Your task to perform on an android device: Open Google Chrome Image 0: 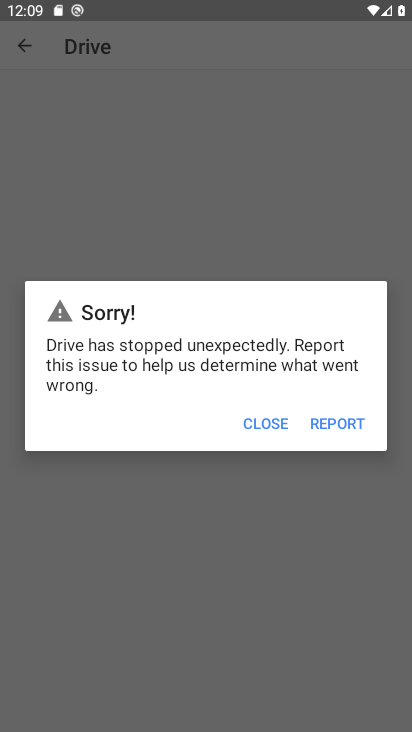
Step 0: click (278, 406)
Your task to perform on an android device: Open Google Chrome Image 1: 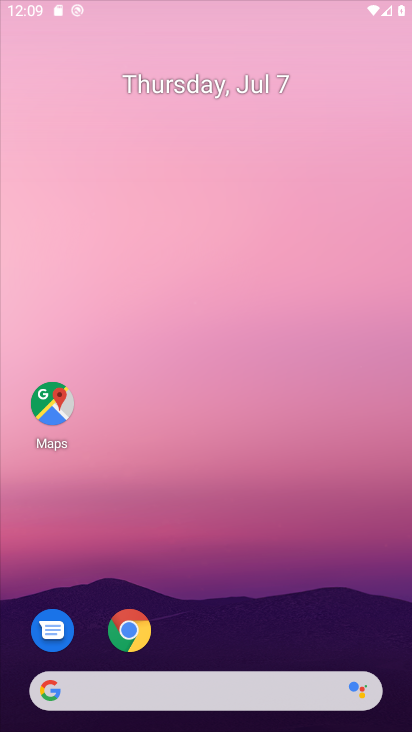
Step 1: press home button
Your task to perform on an android device: Open Google Chrome Image 2: 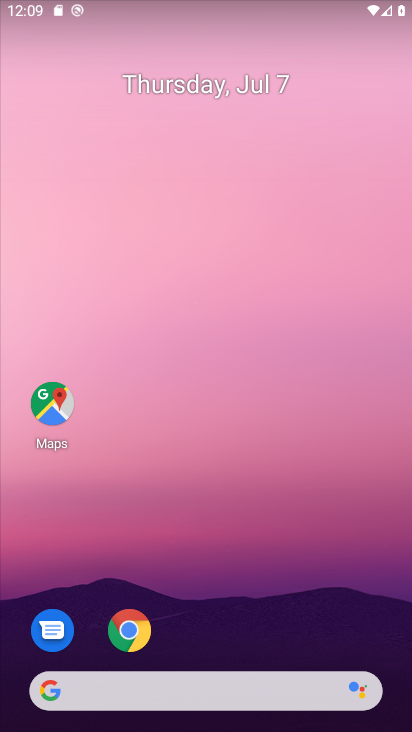
Step 2: drag from (275, 628) to (282, 133)
Your task to perform on an android device: Open Google Chrome Image 3: 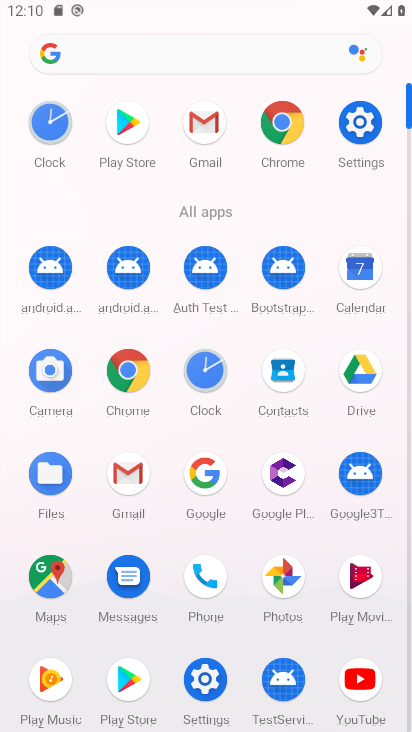
Step 3: click (302, 122)
Your task to perform on an android device: Open Google Chrome Image 4: 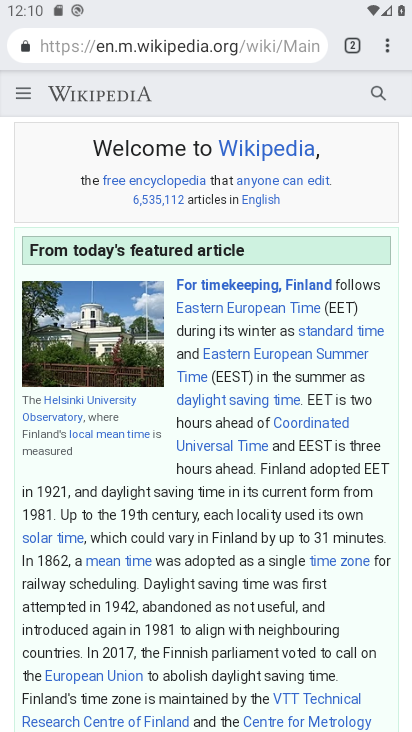
Step 4: click (379, 40)
Your task to perform on an android device: Open Google Chrome Image 5: 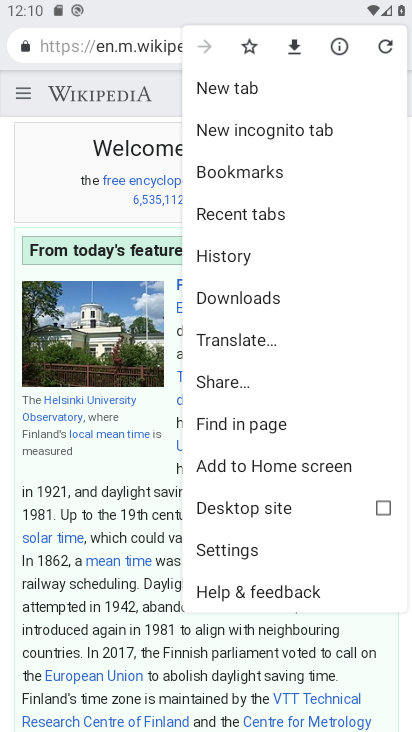
Step 5: click (280, 83)
Your task to perform on an android device: Open Google Chrome Image 6: 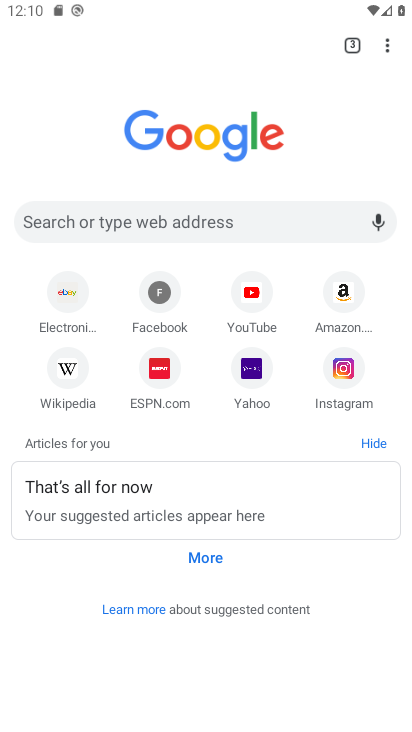
Step 6: task complete